Your task to perform on an android device: Go to calendar. Show me events next week Image 0: 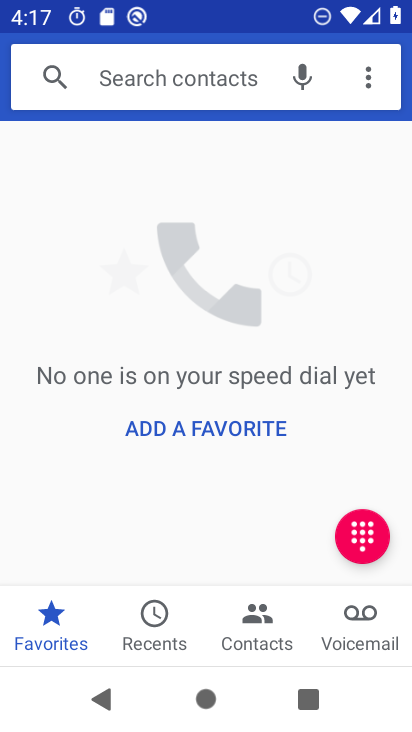
Step 0: press back button
Your task to perform on an android device: Go to calendar. Show me events next week Image 1: 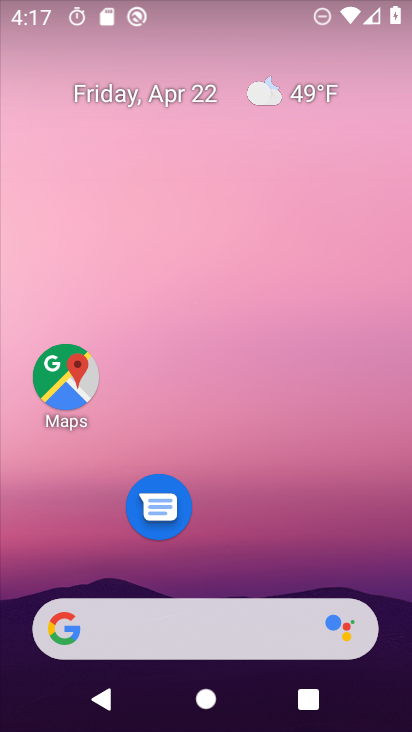
Step 1: drag from (238, 570) to (321, 96)
Your task to perform on an android device: Go to calendar. Show me events next week Image 2: 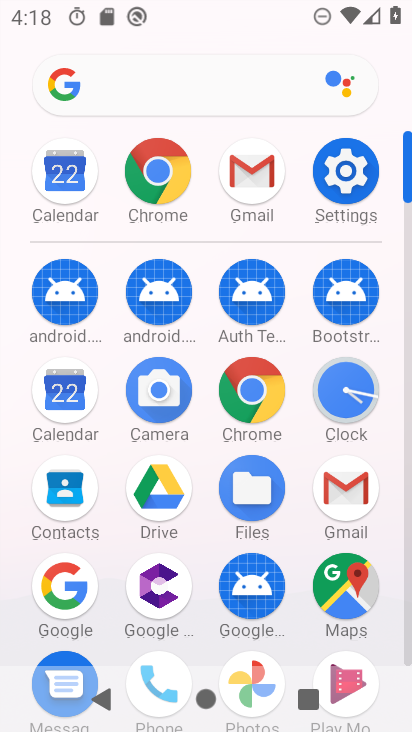
Step 2: click (53, 392)
Your task to perform on an android device: Go to calendar. Show me events next week Image 3: 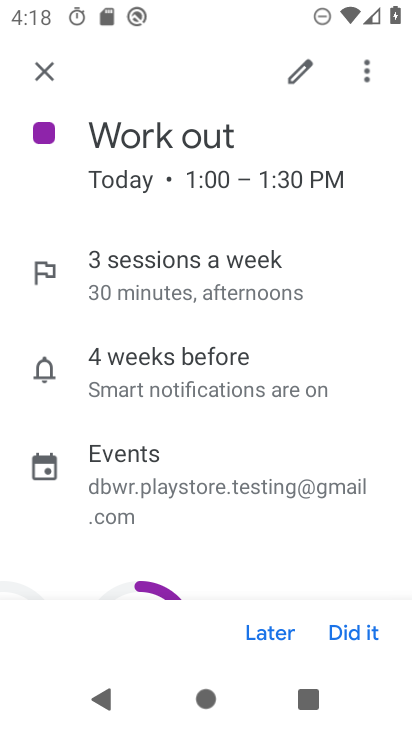
Step 3: click (52, 67)
Your task to perform on an android device: Go to calendar. Show me events next week Image 4: 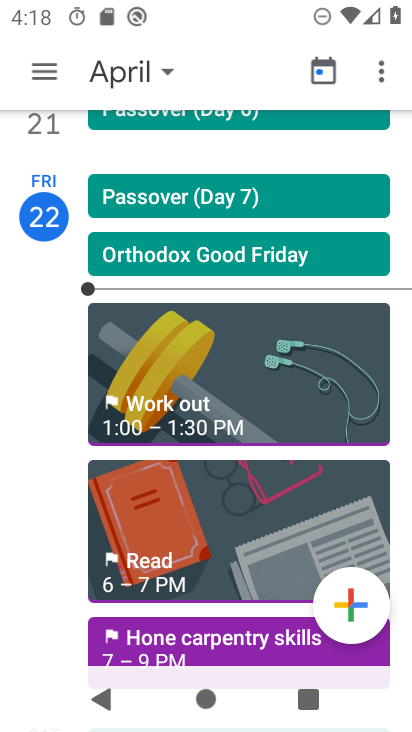
Step 4: drag from (211, 608) to (303, 51)
Your task to perform on an android device: Go to calendar. Show me events next week Image 5: 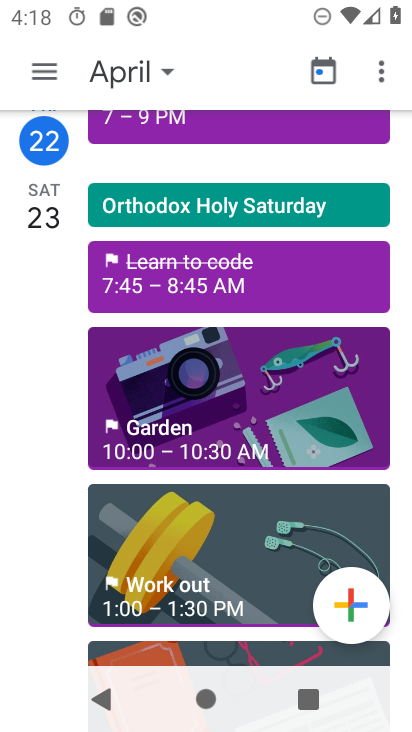
Step 5: click (140, 73)
Your task to perform on an android device: Go to calendar. Show me events next week Image 6: 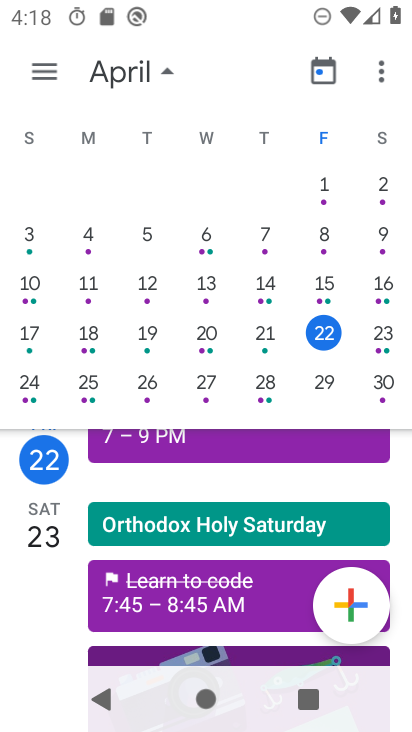
Step 6: click (90, 381)
Your task to perform on an android device: Go to calendar. Show me events next week Image 7: 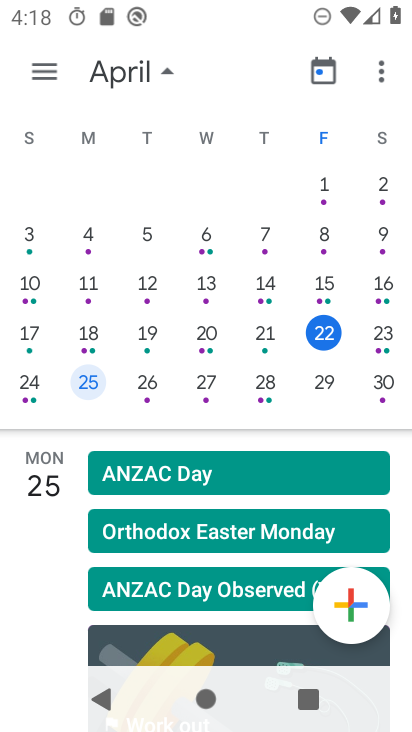
Step 7: task complete